Your task to perform on an android device: Open Google Chrome Image 0: 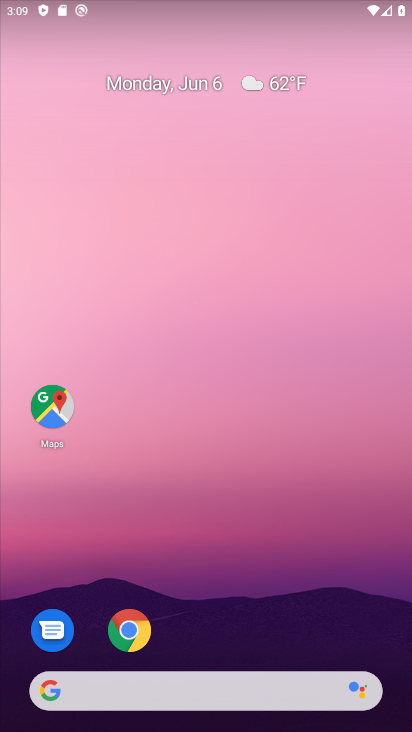
Step 0: press home button
Your task to perform on an android device: Open Google Chrome Image 1: 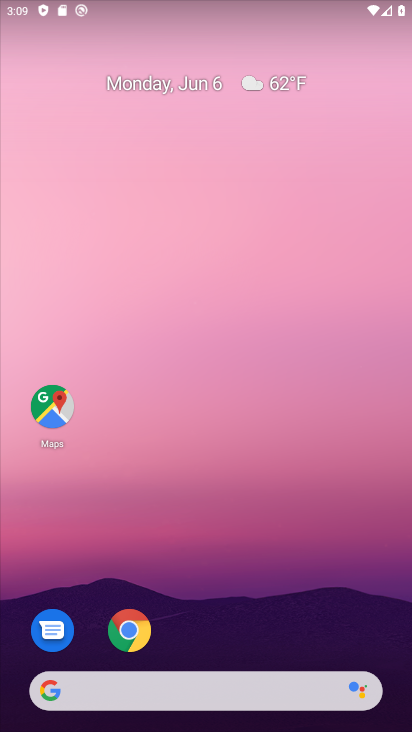
Step 1: click (135, 631)
Your task to perform on an android device: Open Google Chrome Image 2: 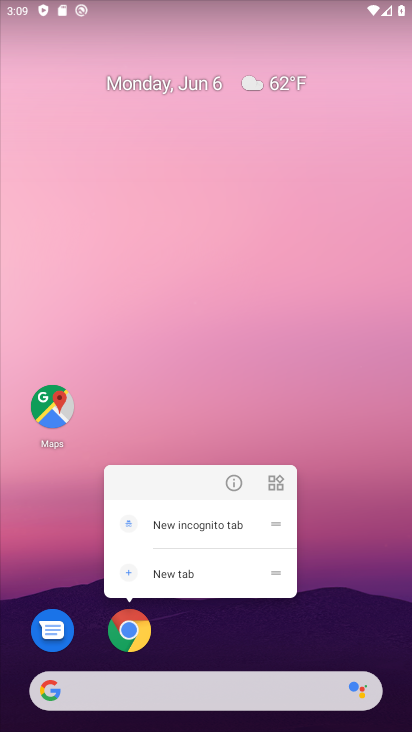
Step 2: click (135, 631)
Your task to perform on an android device: Open Google Chrome Image 3: 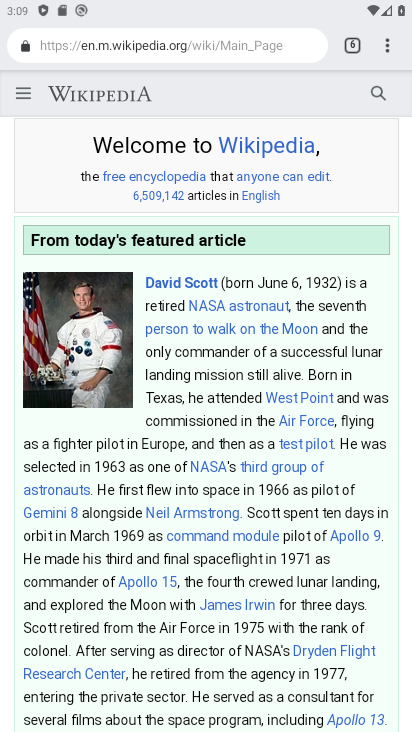
Step 3: task complete